Your task to perform on an android device: Show me popular videos on Youtube Image 0: 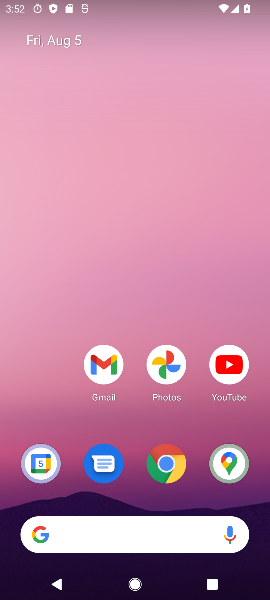
Step 0: click (225, 367)
Your task to perform on an android device: Show me popular videos on Youtube Image 1: 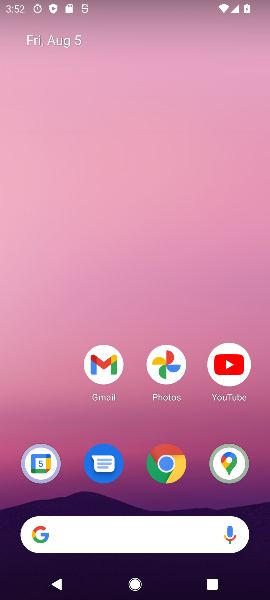
Step 1: click (226, 366)
Your task to perform on an android device: Show me popular videos on Youtube Image 2: 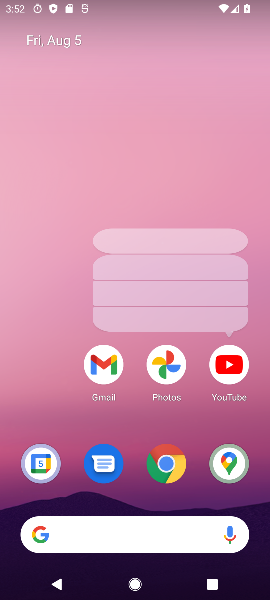
Step 2: click (226, 366)
Your task to perform on an android device: Show me popular videos on Youtube Image 3: 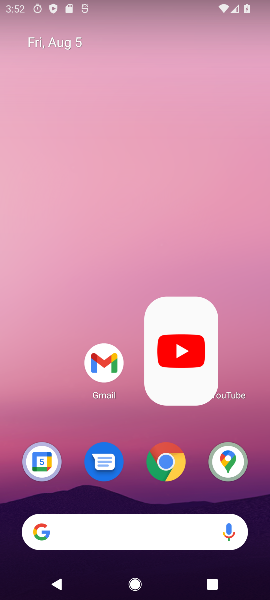
Step 3: click (226, 366)
Your task to perform on an android device: Show me popular videos on Youtube Image 4: 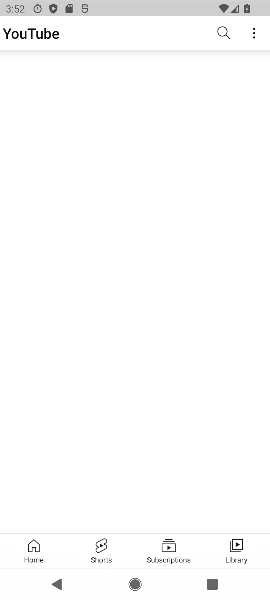
Step 4: click (121, 293)
Your task to perform on an android device: Show me popular videos on Youtube Image 5: 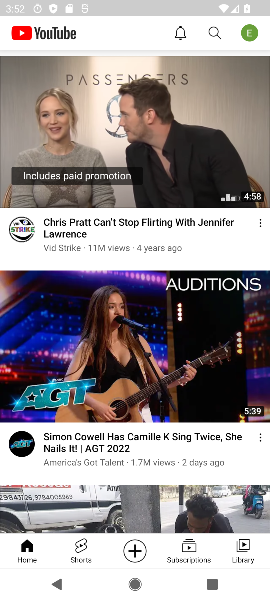
Step 5: click (90, 148)
Your task to perform on an android device: Show me popular videos on Youtube Image 6: 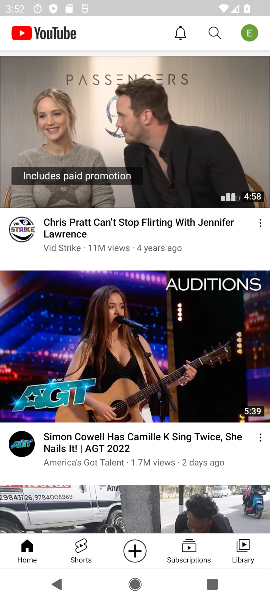
Step 6: click (90, 148)
Your task to perform on an android device: Show me popular videos on Youtube Image 7: 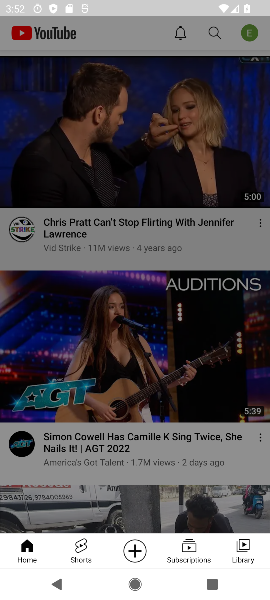
Step 7: click (90, 148)
Your task to perform on an android device: Show me popular videos on Youtube Image 8: 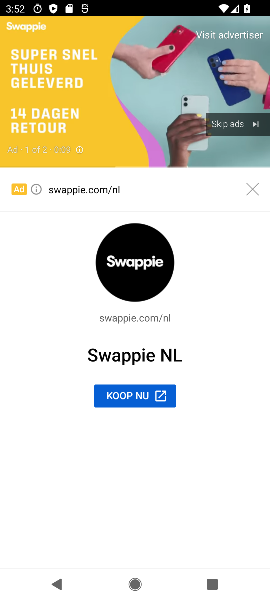
Step 8: click (227, 125)
Your task to perform on an android device: Show me popular videos on Youtube Image 9: 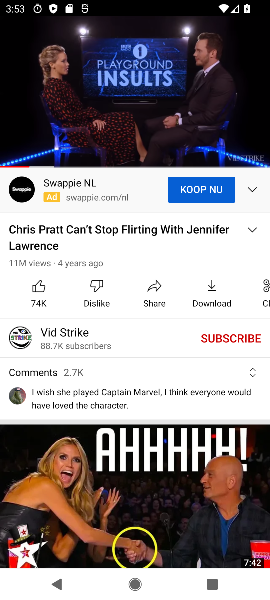
Step 9: task complete